Your task to perform on an android device: Open the web browser Image 0: 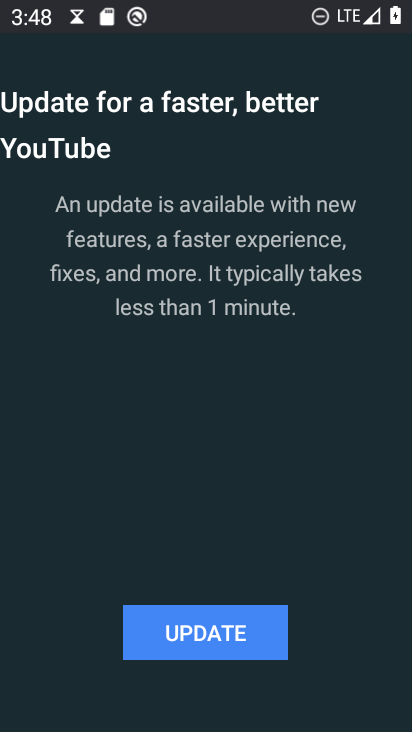
Step 0: press back button
Your task to perform on an android device: Open the web browser Image 1: 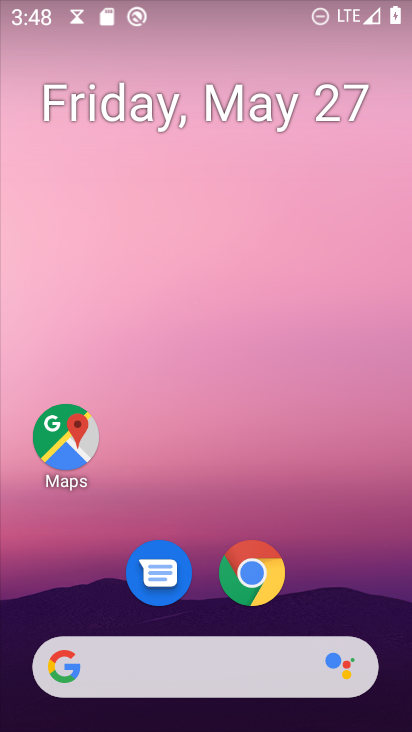
Step 1: click (253, 570)
Your task to perform on an android device: Open the web browser Image 2: 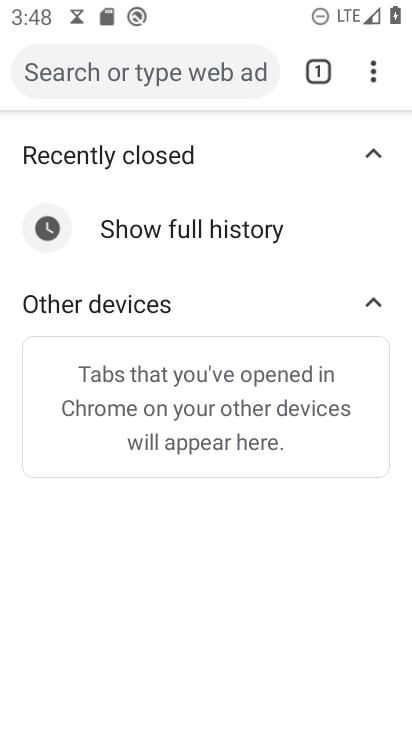
Step 2: task complete